Your task to perform on an android device: Go to notification settings Image 0: 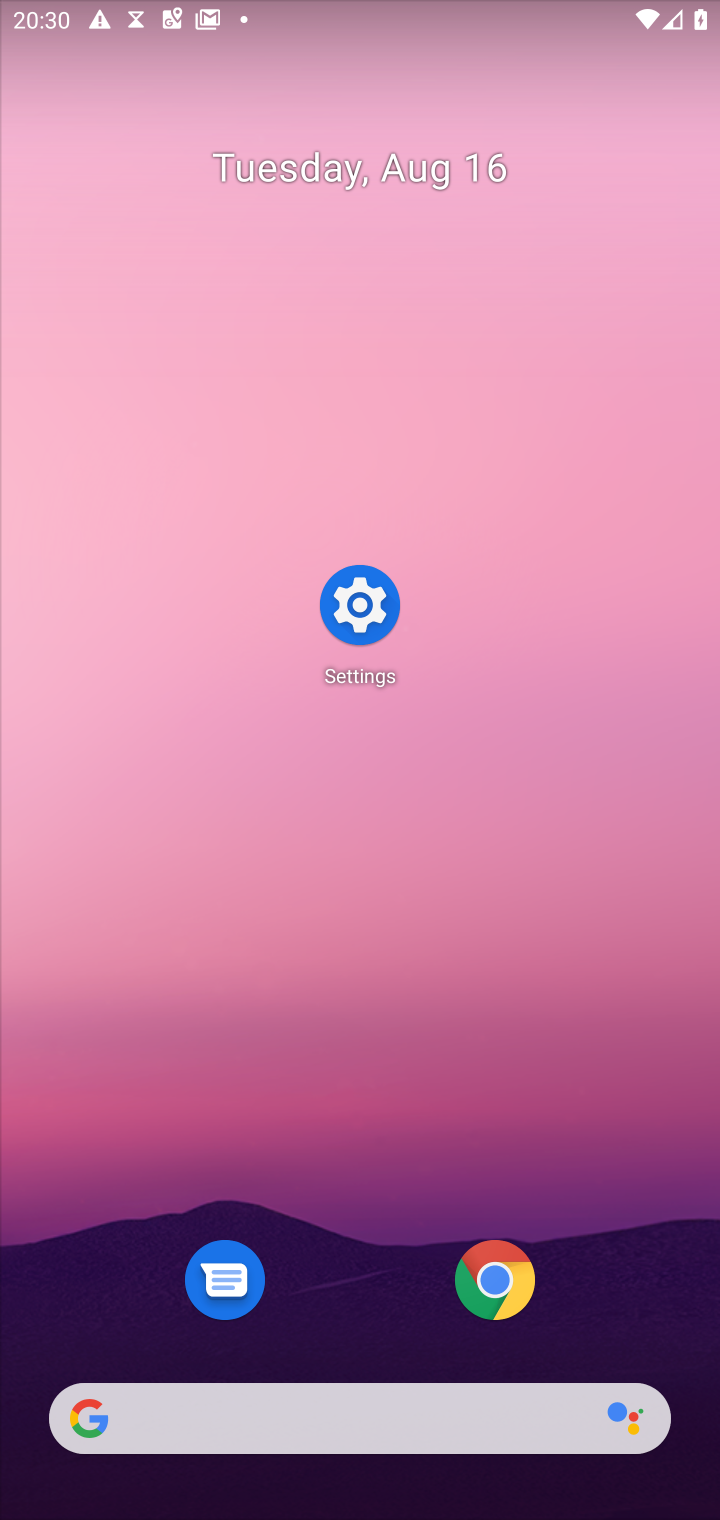
Step 0: drag from (384, 866) to (457, 63)
Your task to perform on an android device: Go to notification settings Image 1: 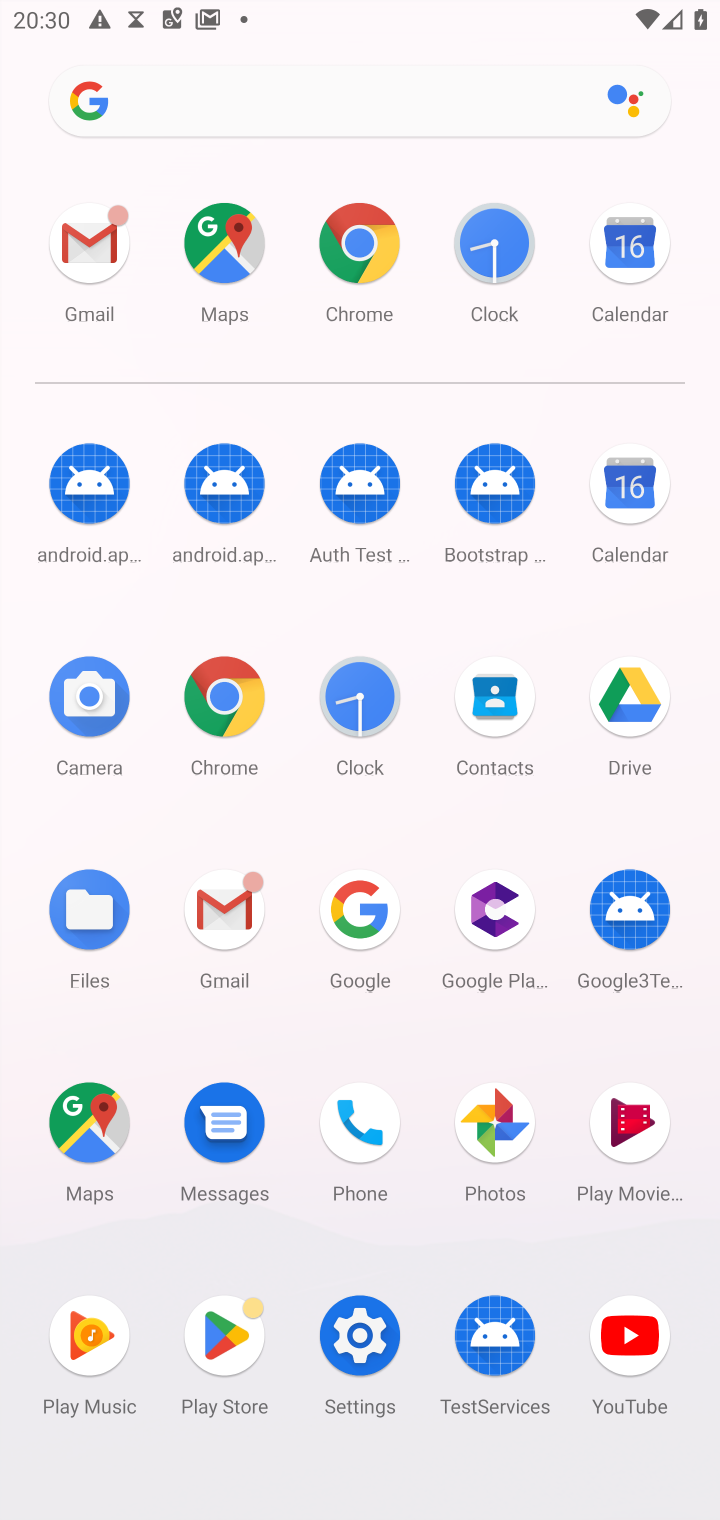
Step 1: click (382, 1368)
Your task to perform on an android device: Go to notification settings Image 2: 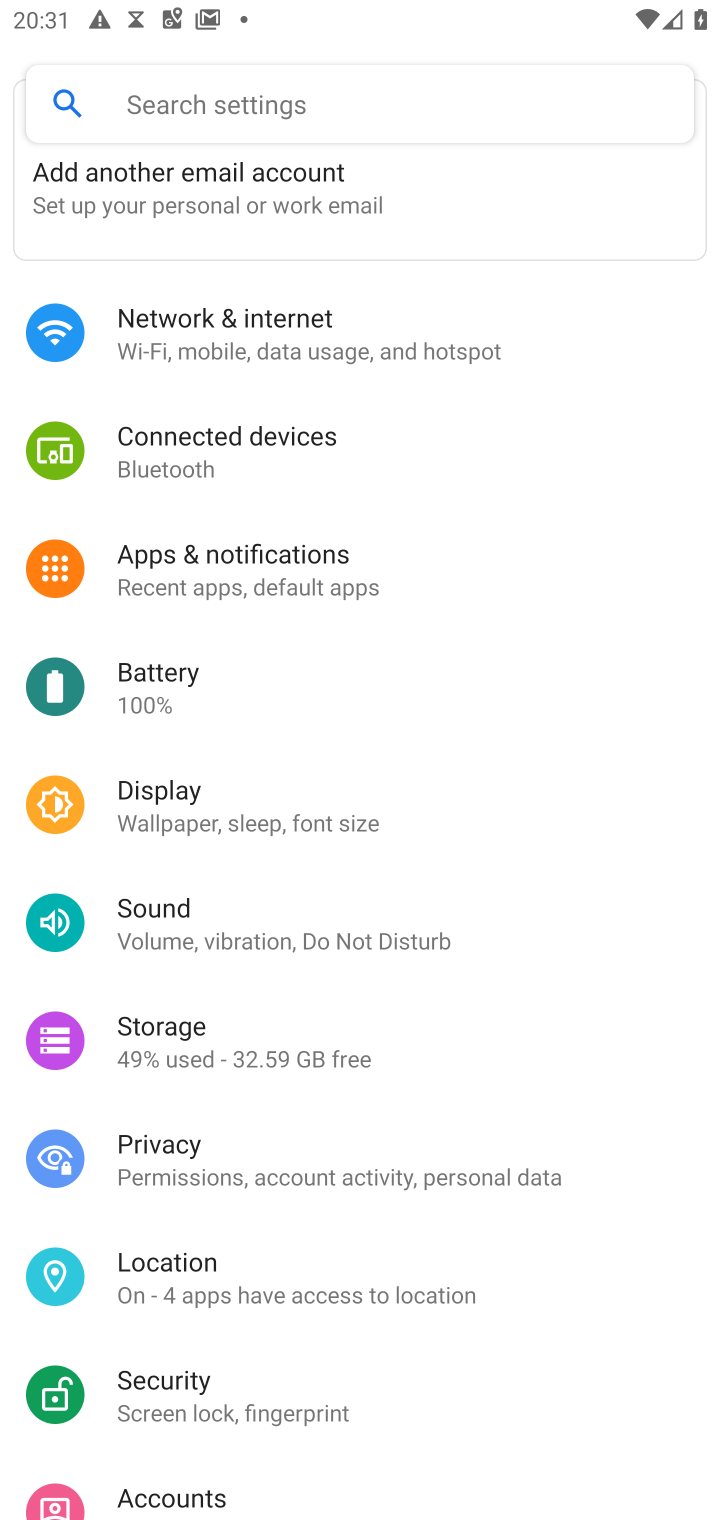
Step 2: click (307, 595)
Your task to perform on an android device: Go to notification settings Image 3: 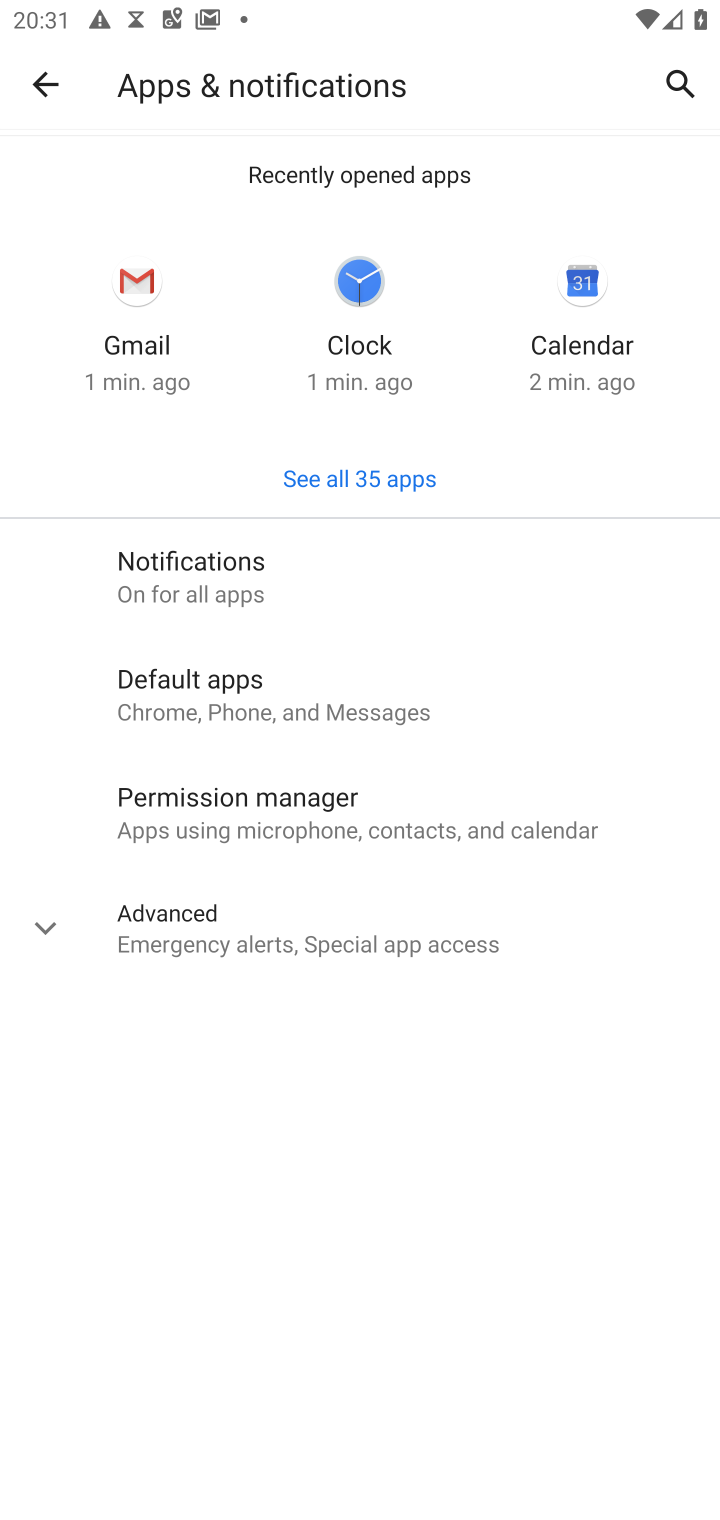
Step 3: click (234, 594)
Your task to perform on an android device: Go to notification settings Image 4: 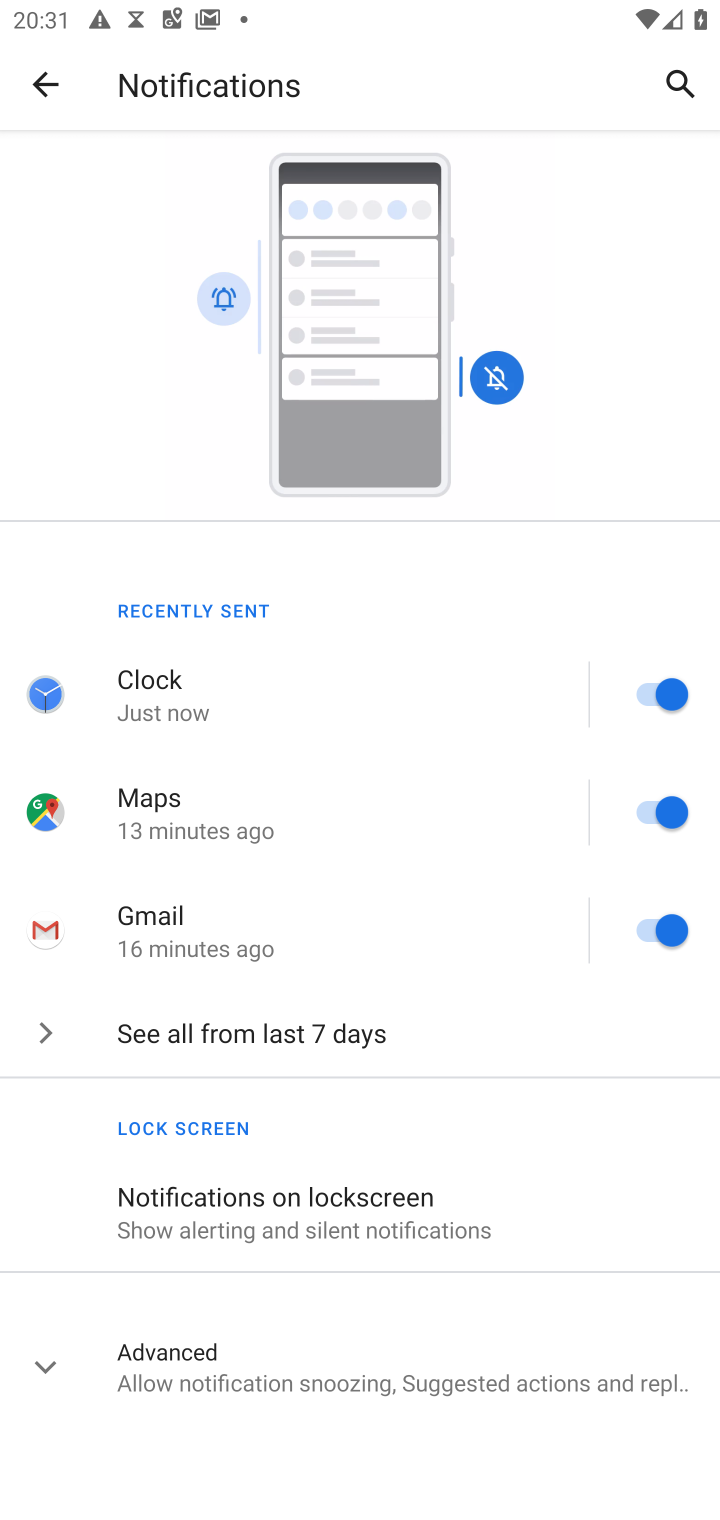
Step 4: task complete